Your task to perform on an android device: open the mobile data screen to see how much data has been used Image 0: 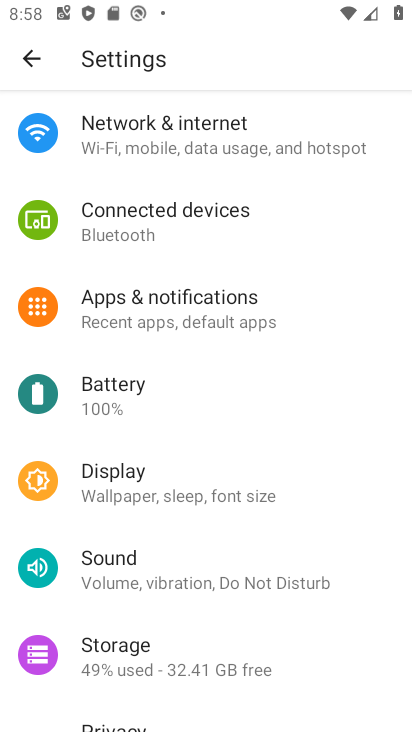
Step 0: click (211, 150)
Your task to perform on an android device: open the mobile data screen to see how much data has been used Image 1: 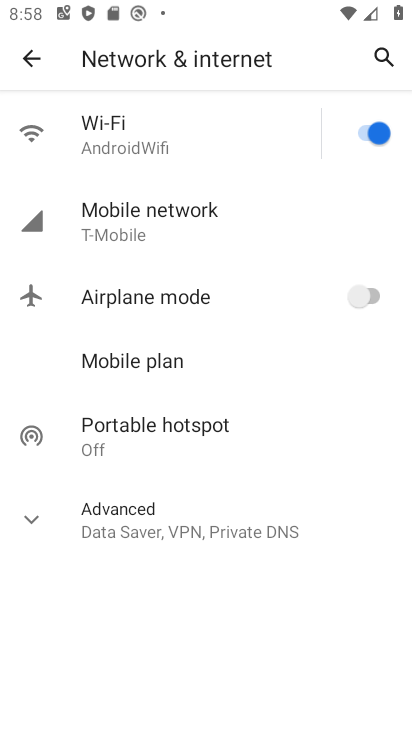
Step 1: click (164, 212)
Your task to perform on an android device: open the mobile data screen to see how much data has been used Image 2: 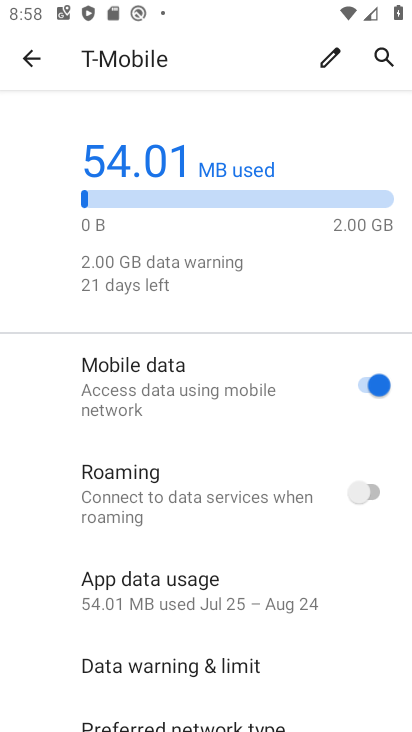
Step 2: click (182, 587)
Your task to perform on an android device: open the mobile data screen to see how much data has been used Image 3: 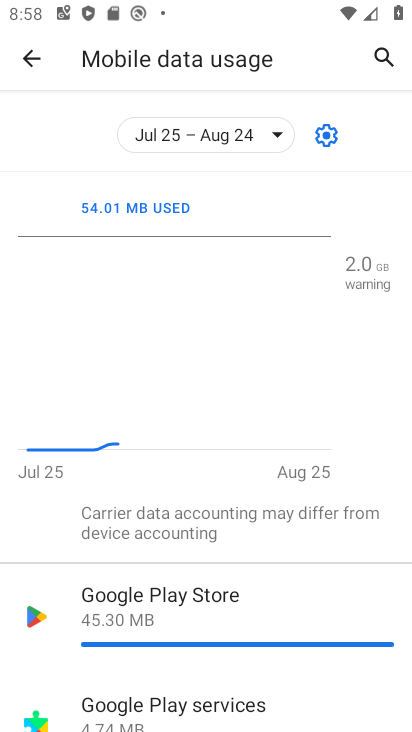
Step 3: task complete